Your task to perform on an android device: Open eBay Image 0: 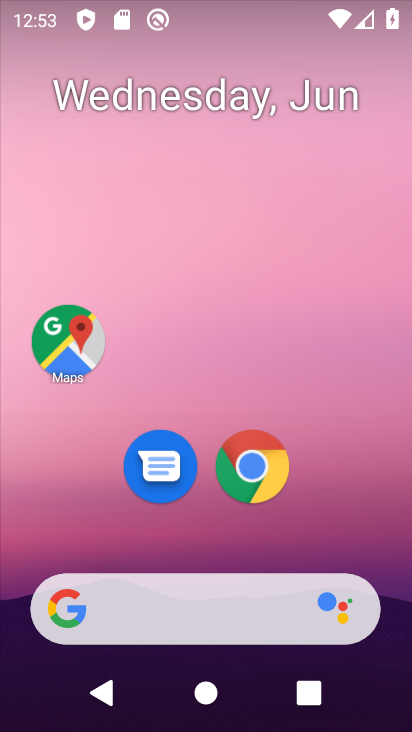
Step 0: click (280, 474)
Your task to perform on an android device: Open eBay Image 1: 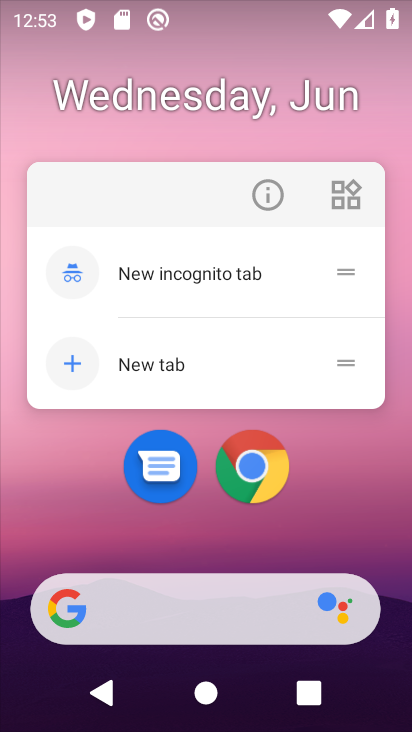
Step 1: click (276, 474)
Your task to perform on an android device: Open eBay Image 2: 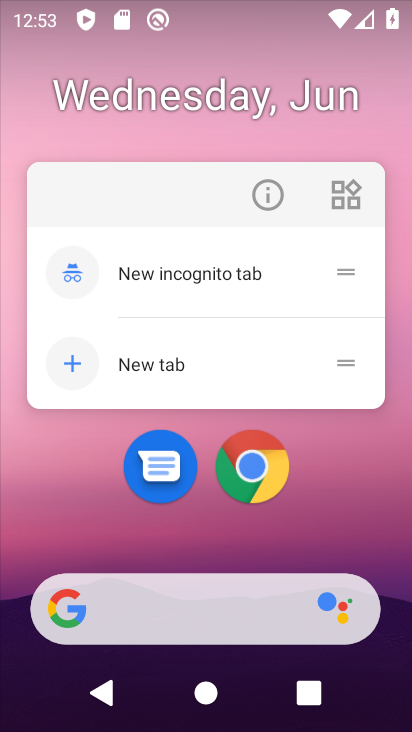
Step 2: click (276, 474)
Your task to perform on an android device: Open eBay Image 3: 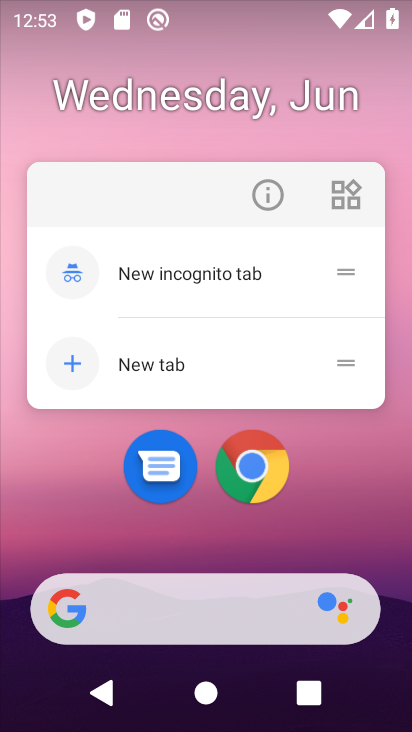
Step 3: click (267, 478)
Your task to perform on an android device: Open eBay Image 4: 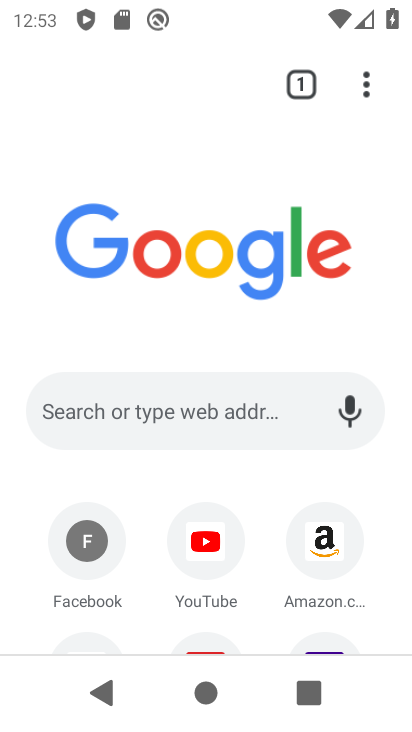
Step 4: drag from (267, 475) to (369, 211)
Your task to perform on an android device: Open eBay Image 5: 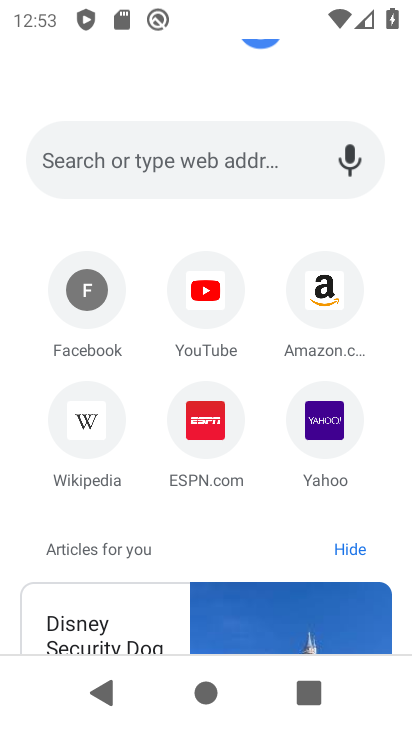
Step 5: click (175, 174)
Your task to perform on an android device: Open eBay Image 6: 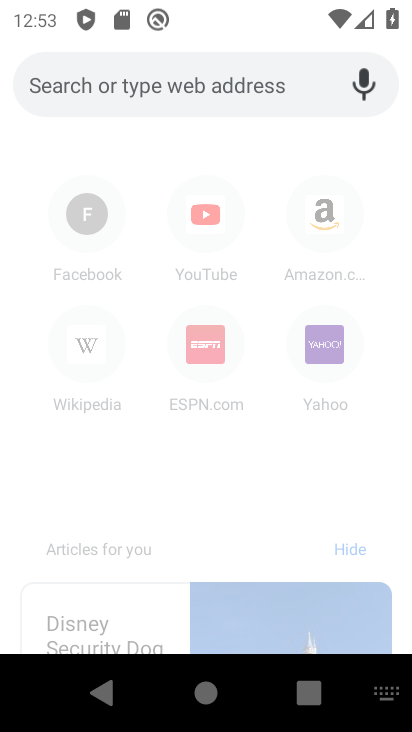
Step 6: type "eBay"
Your task to perform on an android device: Open eBay Image 7: 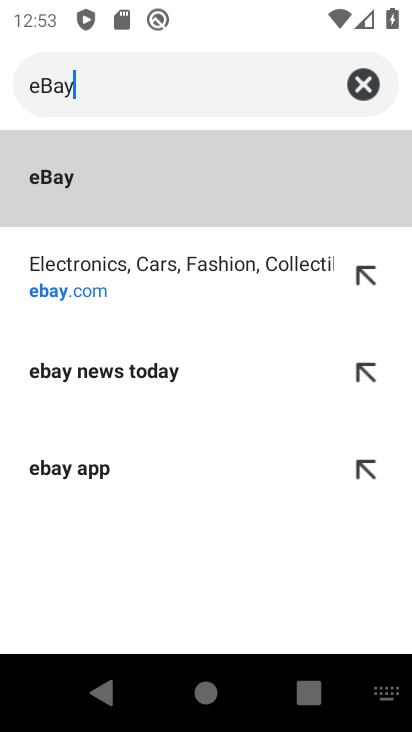
Step 7: click (153, 268)
Your task to perform on an android device: Open eBay Image 8: 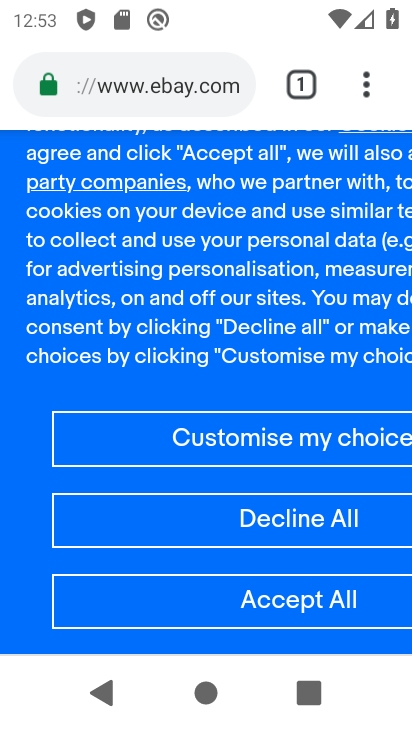
Step 8: click (270, 613)
Your task to perform on an android device: Open eBay Image 9: 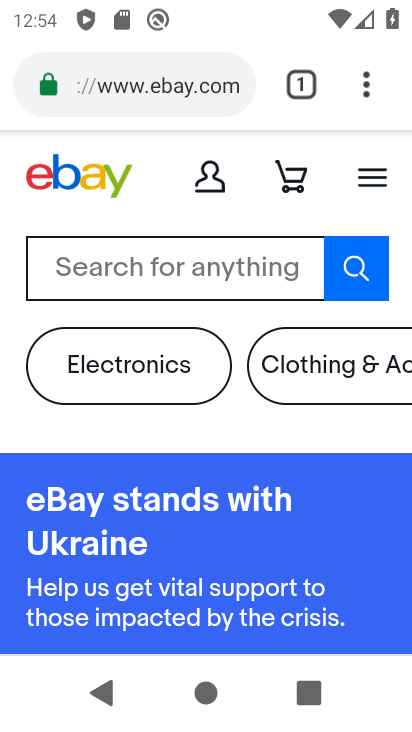
Step 9: task complete